Your task to perform on an android device: install app "Google Drive" Image 0: 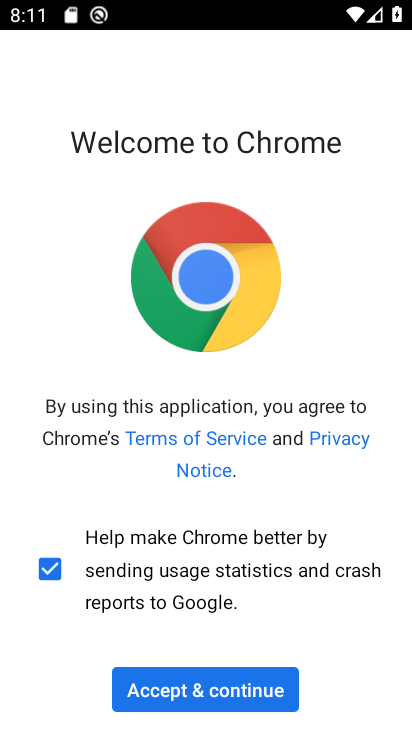
Step 0: press home button
Your task to perform on an android device: install app "Google Drive" Image 1: 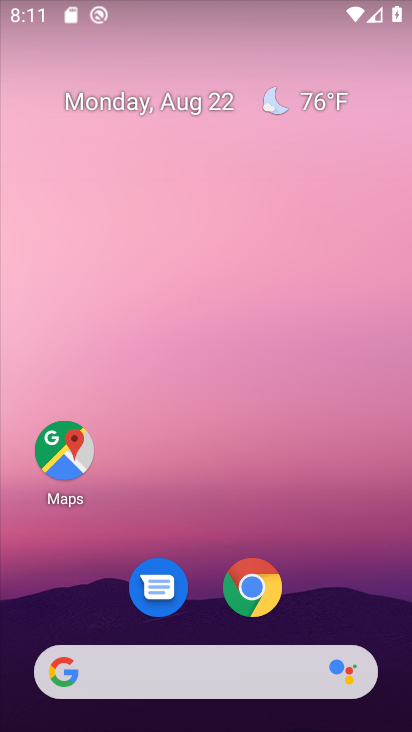
Step 1: drag from (371, 610) to (342, 96)
Your task to perform on an android device: install app "Google Drive" Image 2: 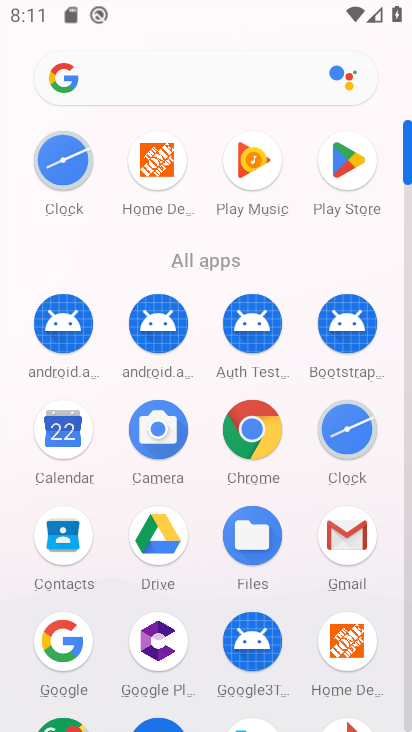
Step 2: click (409, 683)
Your task to perform on an android device: install app "Google Drive" Image 3: 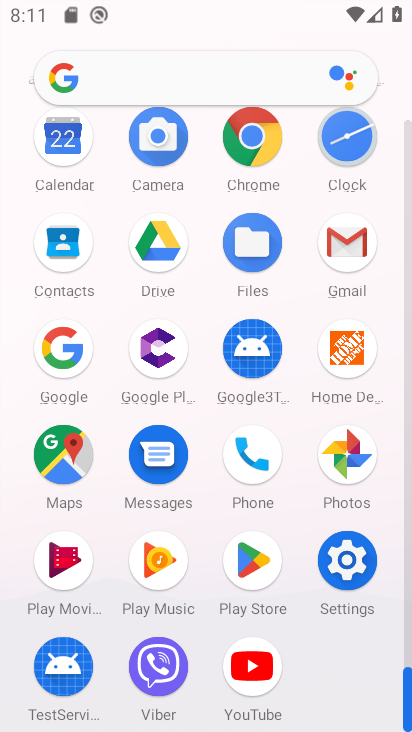
Step 3: click (255, 561)
Your task to perform on an android device: install app "Google Drive" Image 4: 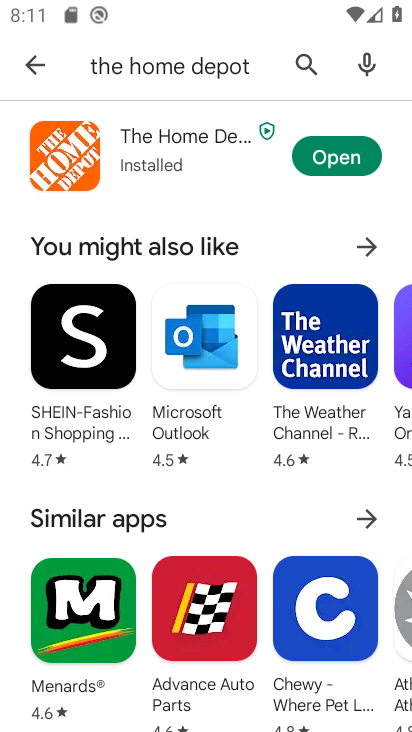
Step 4: click (295, 68)
Your task to perform on an android device: install app "Google Drive" Image 5: 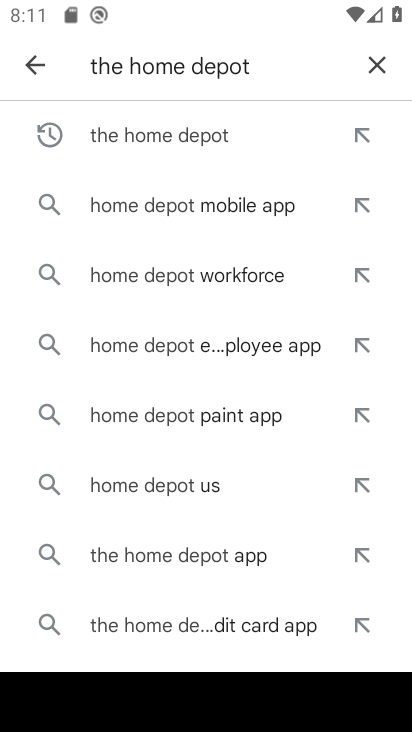
Step 5: click (373, 62)
Your task to perform on an android device: install app "Google Drive" Image 6: 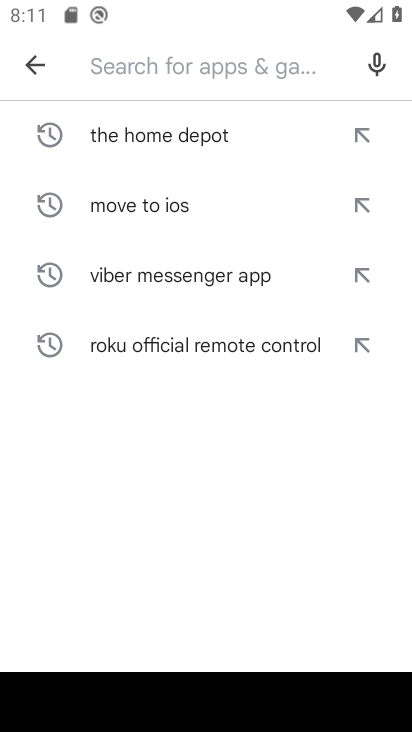
Step 6: type "google drive"
Your task to perform on an android device: install app "Google Drive" Image 7: 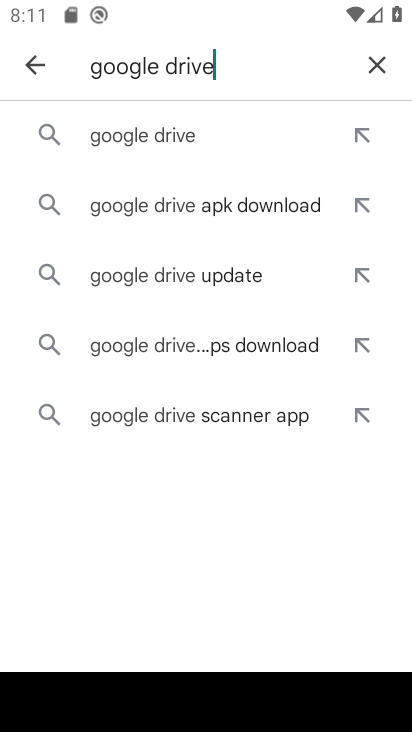
Step 7: click (137, 131)
Your task to perform on an android device: install app "Google Drive" Image 8: 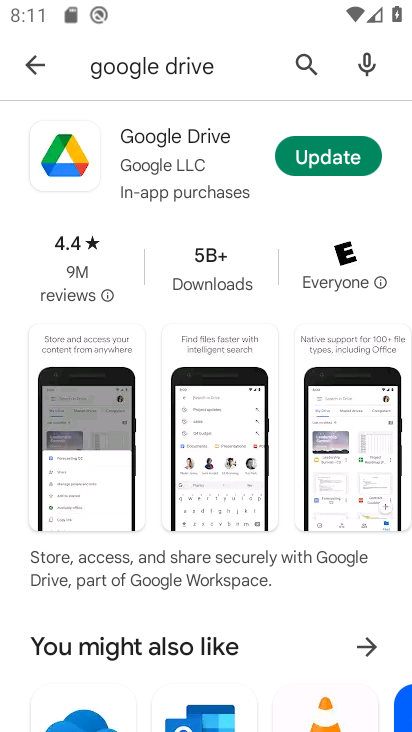
Step 8: task complete